Your task to perform on an android device: turn on notifications settings in the gmail app Image 0: 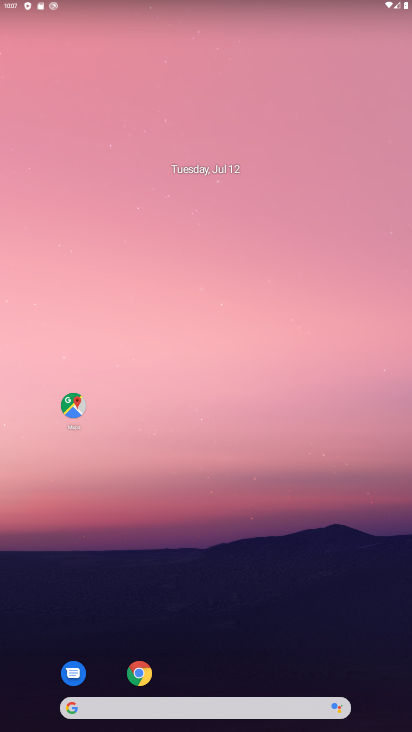
Step 0: drag from (274, 714) to (205, 168)
Your task to perform on an android device: turn on notifications settings in the gmail app Image 1: 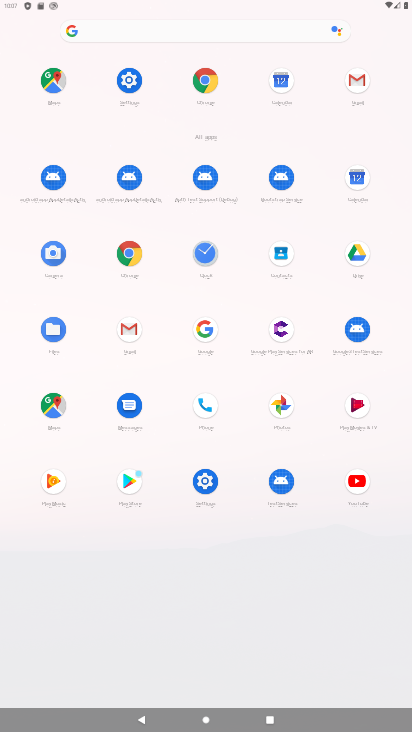
Step 1: click (359, 74)
Your task to perform on an android device: turn on notifications settings in the gmail app Image 2: 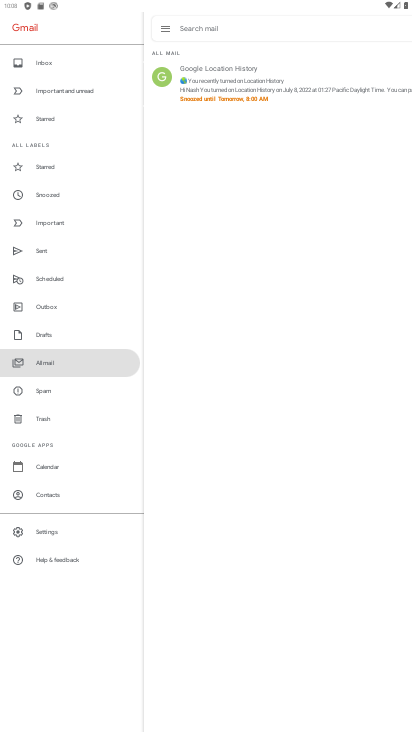
Step 2: click (57, 534)
Your task to perform on an android device: turn on notifications settings in the gmail app Image 3: 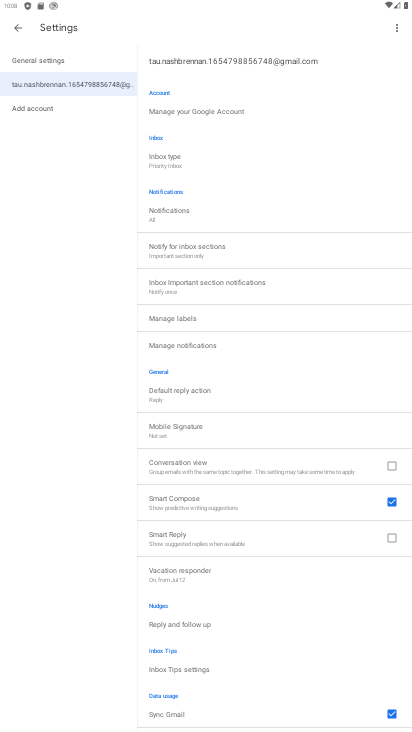
Step 3: click (191, 346)
Your task to perform on an android device: turn on notifications settings in the gmail app Image 4: 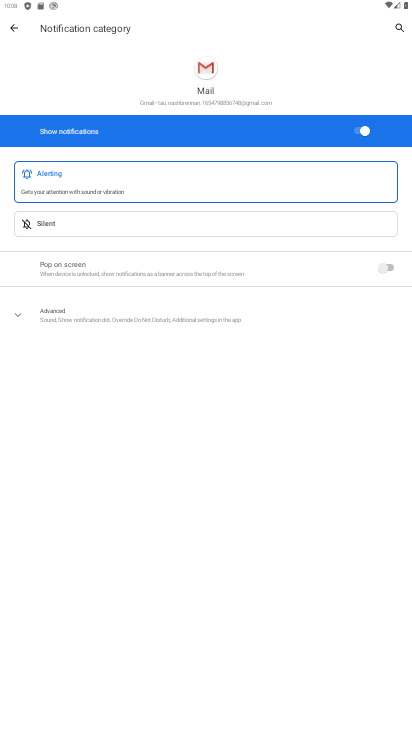
Step 4: task complete